Your task to perform on an android device: turn off improve location accuracy Image 0: 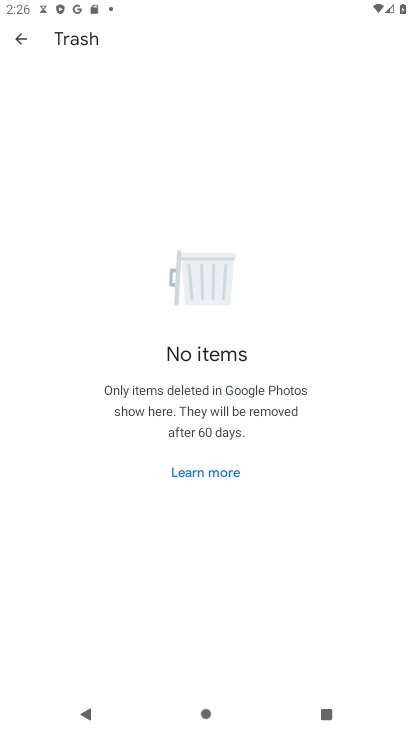
Step 0: press home button
Your task to perform on an android device: turn off improve location accuracy Image 1: 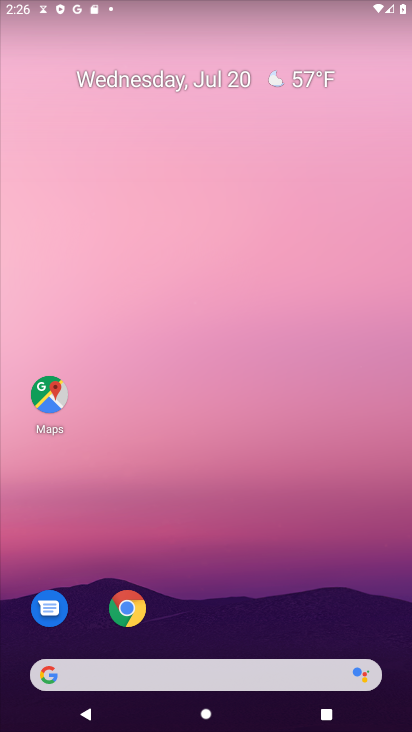
Step 1: drag from (208, 588) to (142, 3)
Your task to perform on an android device: turn off improve location accuracy Image 2: 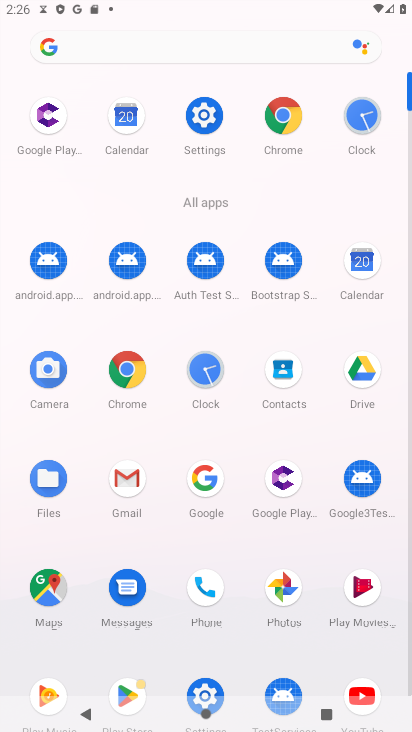
Step 2: click (205, 113)
Your task to perform on an android device: turn off improve location accuracy Image 3: 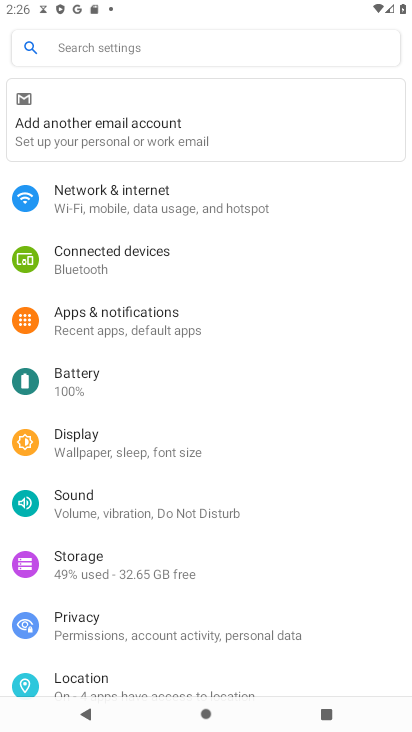
Step 3: click (59, 675)
Your task to perform on an android device: turn off improve location accuracy Image 4: 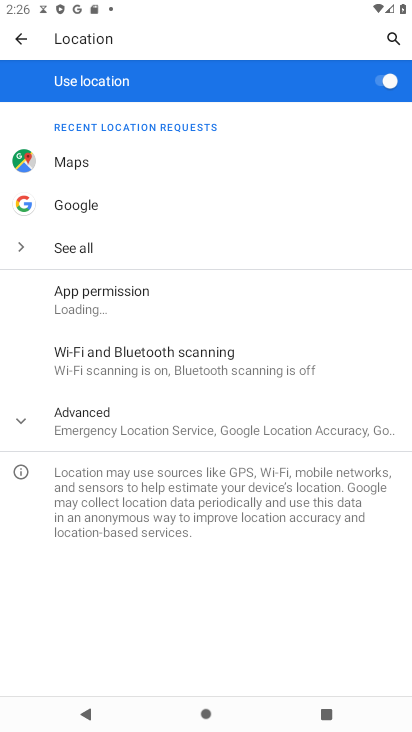
Step 4: click (124, 420)
Your task to perform on an android device: turn off improve location accuracy Image 5: 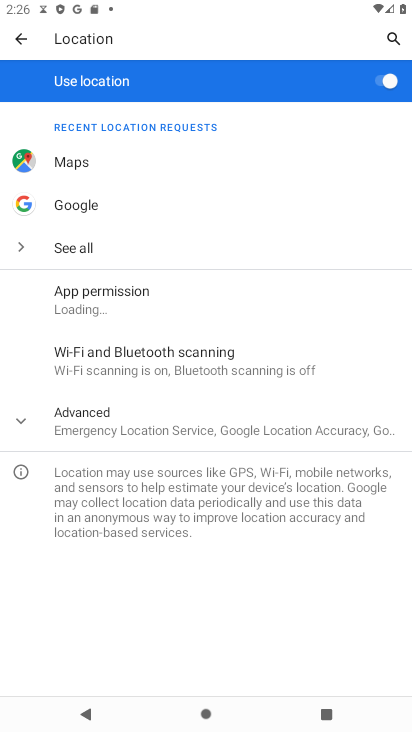
Step 5: click (124, 420)
Your task to perform on an android device: turn off improve location accuracy Image 6: 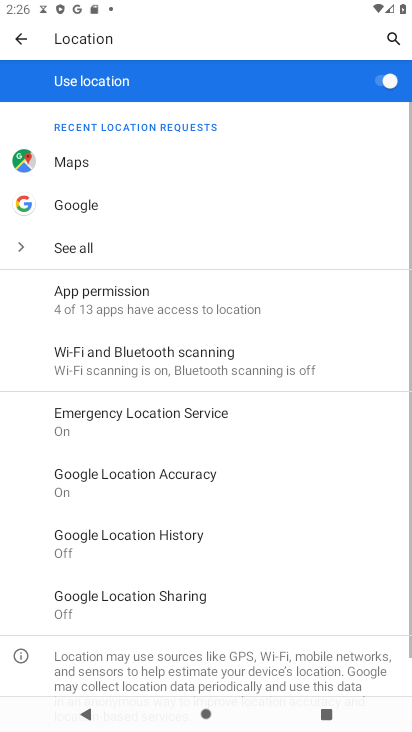
Step 6: click (133, 473)
Your task to perform on an android device: turn off improve location accuracy Image 7: 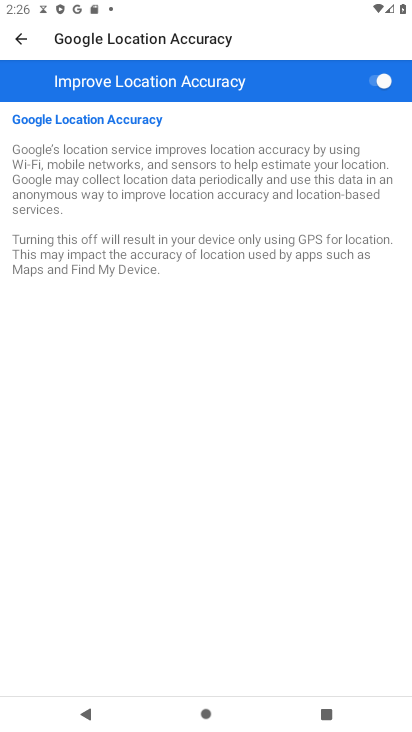
Step 7: click (368, 85)
Your task to perform on an android device: turn off improve location accuracy Image 8: 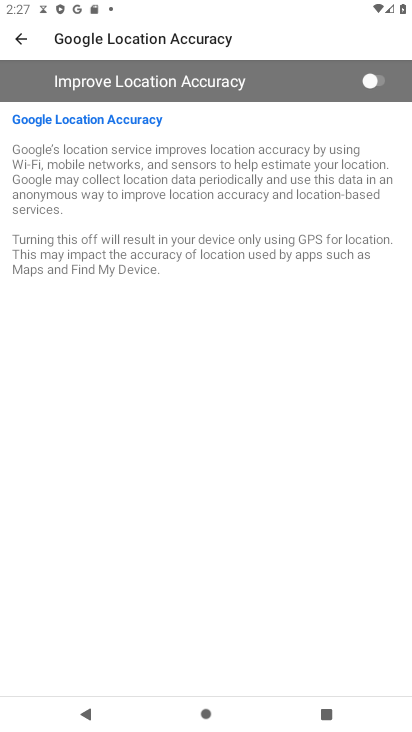
Step 8: task complete